Your task to perform on an android device: What is the capital of the United Kingdom? Image 0: 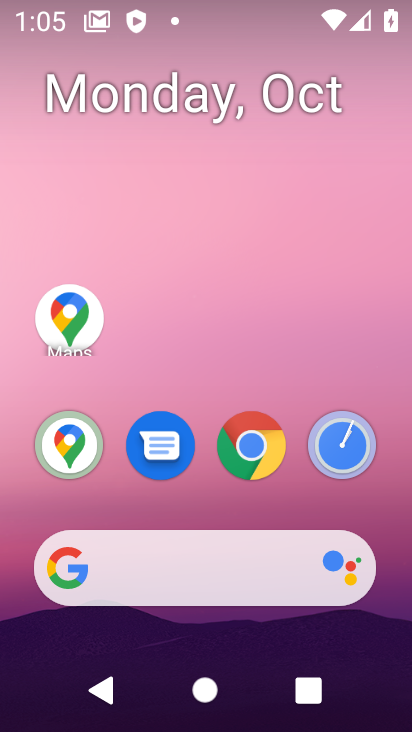
Step 0: click (208, 549)
Your task to perform on an android device: What is the capital of the United Kingdom? Image 1: 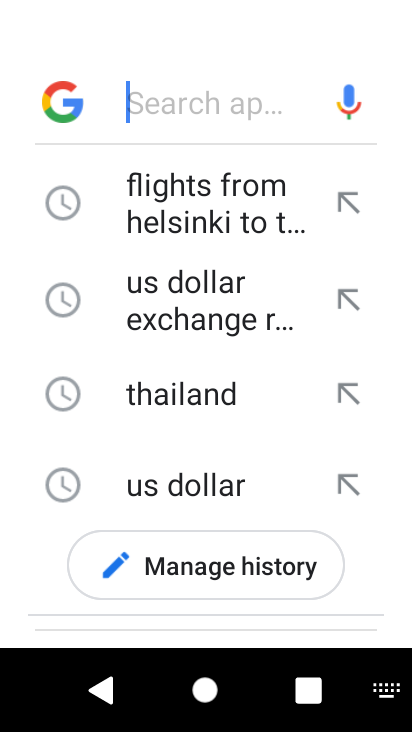
Step 1: type "capital of the United Kingdom"
Your task to perform on an android device: What is the capital of the United Kingdom? Image 2: 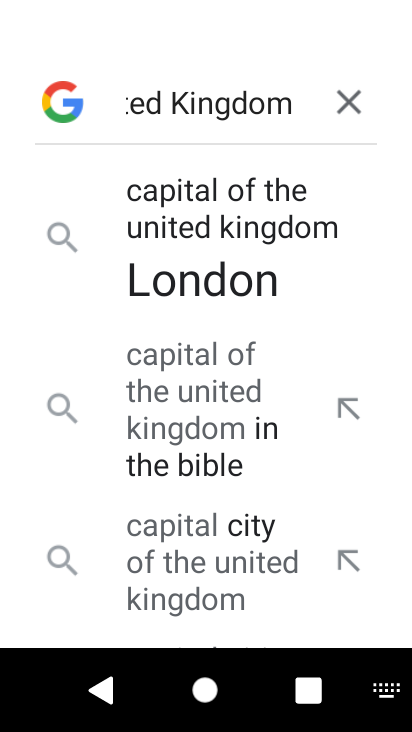
Step 2: type ""
Your task to perform on an android device: What is the capital of the United Kingdom? Image 3: 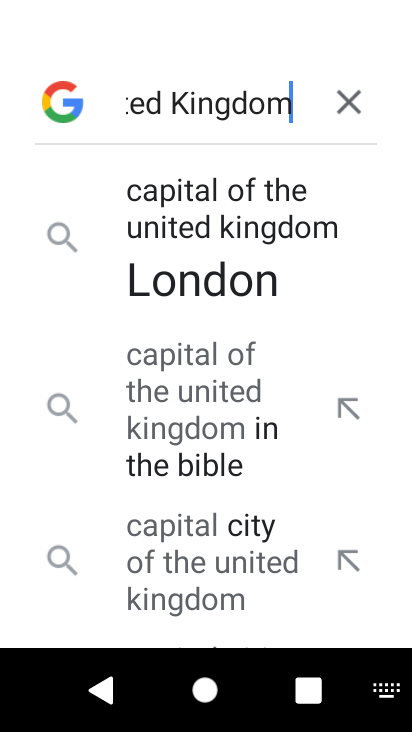
Step 3: click (236, 259)
Your task to perform on an android device: What is the capital of the United Kingdom? Image 4: 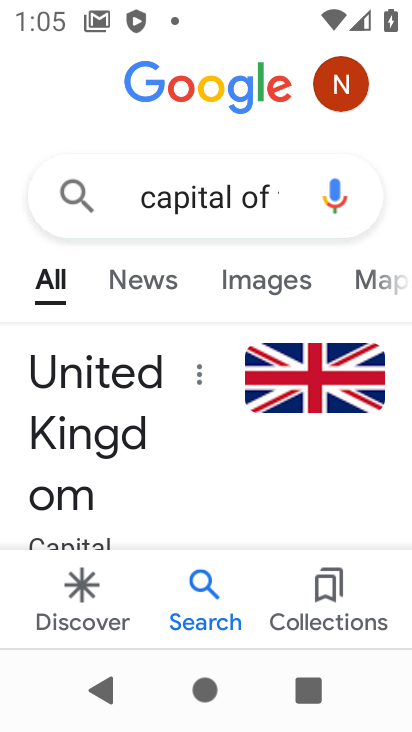
Step 4: task complete